Your task to perform on an android device: Show me the alarms in the clock app Image 0: 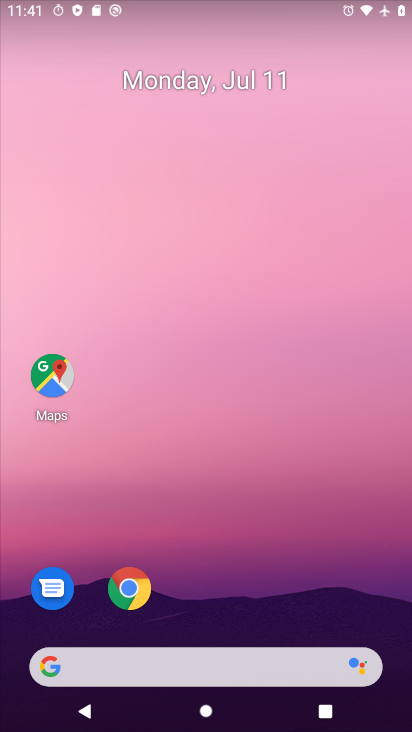
Step 0: drag from (194, 657) to (363, 176)
Your task to perform on an android device: Show me the alarms in the clock app Image 1: 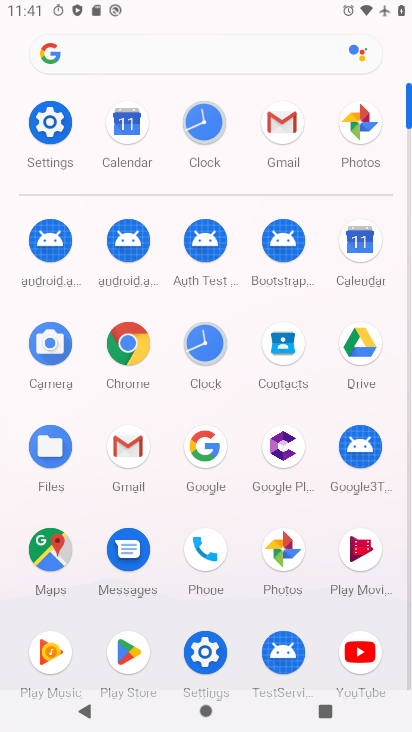
Step 1: click (201, 136)
Your task to perform on an android device: Show me the alarms in the clock app Image 2: 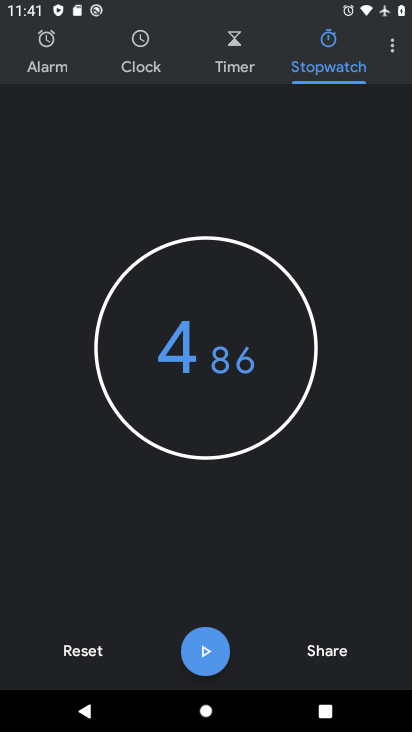
Step 2: click (47, 56)
Your task to perform on an android device: Show me the alarms in the clock app Image 3: 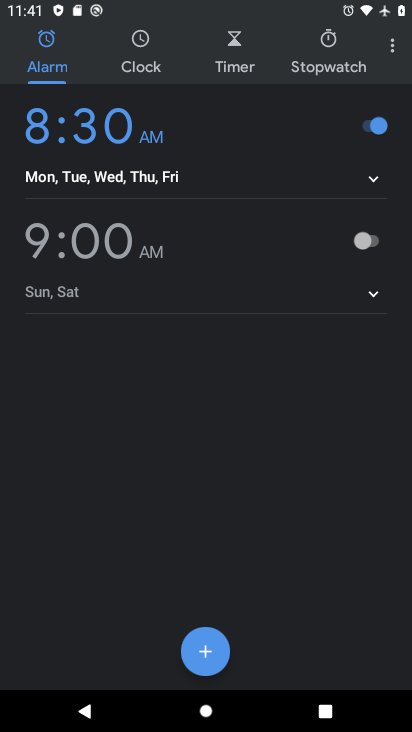
Step 3: task complete